Your task to perform on an android device: Open maps Image 0: 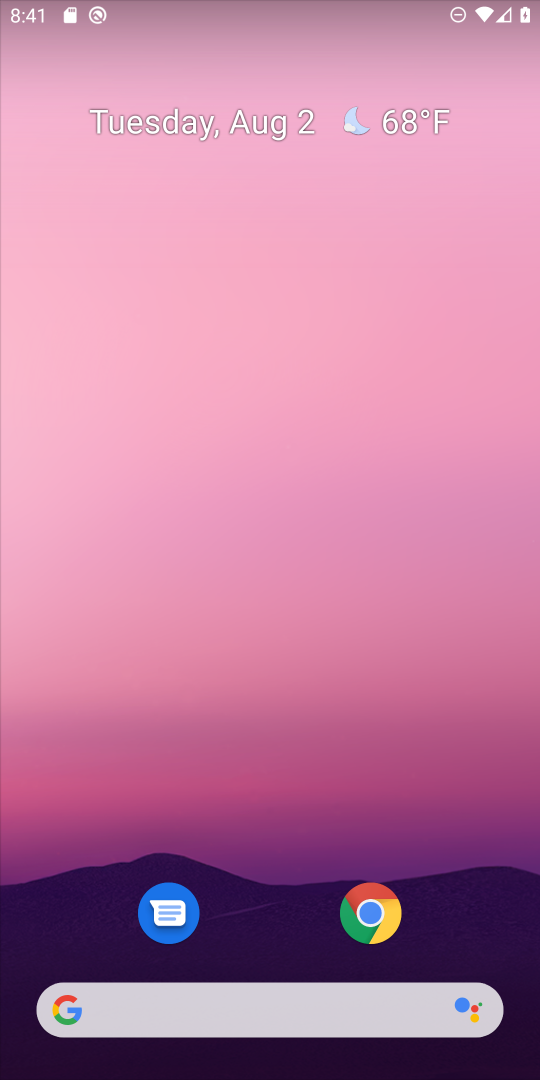
Step 0: drag from (299, 761) to (353, 66)
Your task to perform on an android device: Open maps Image 1: 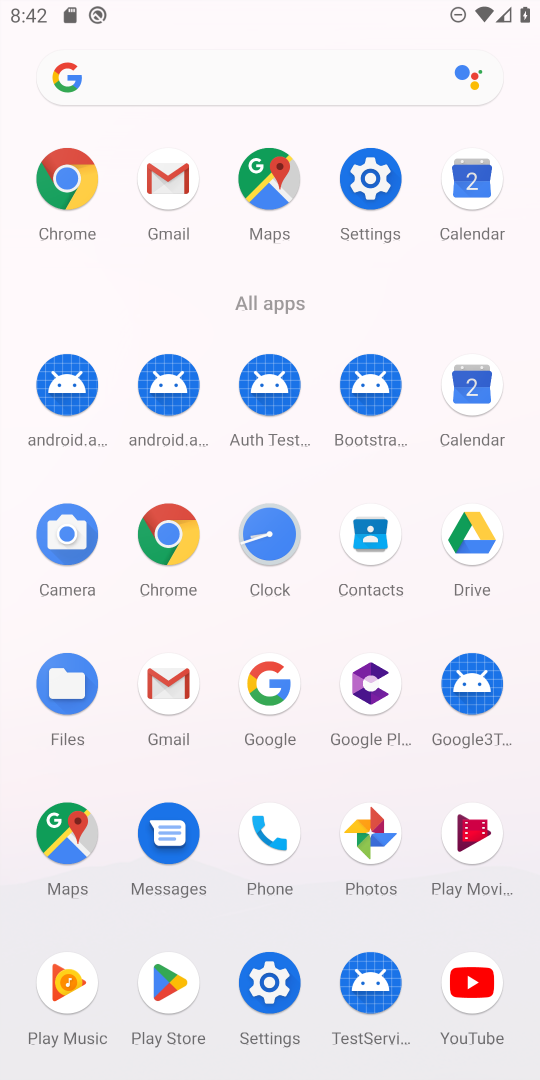
Step 1: click (280, 187)
Your task to perform on an android device: Open maps Image 2: 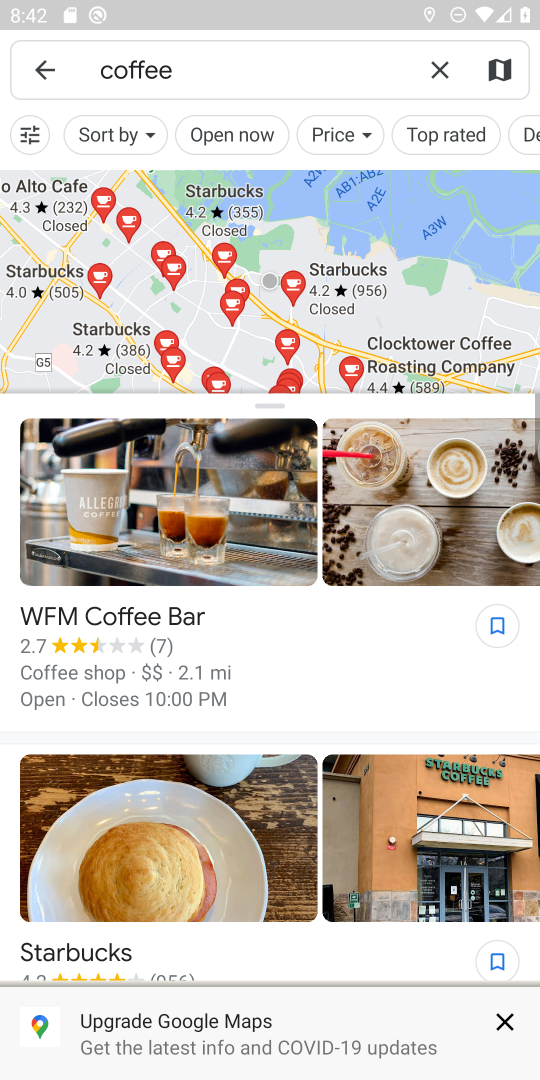
Step 2: click (27, 61)
Your task to perform on an android device: Open maps Image 3: 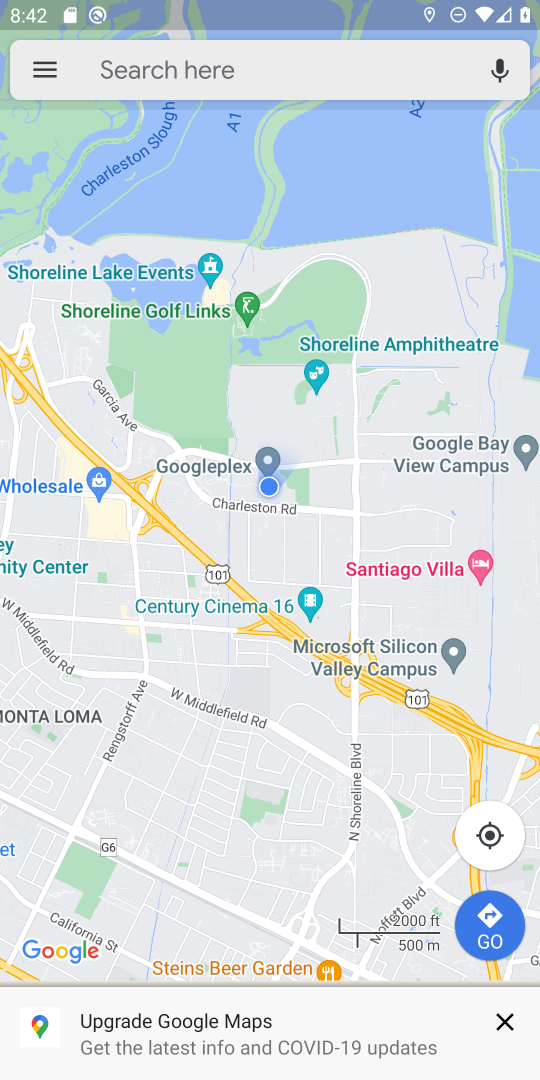
Step 3: task complete